Your task to perform on an android device: turn pop-ups off in chrome Image 0: 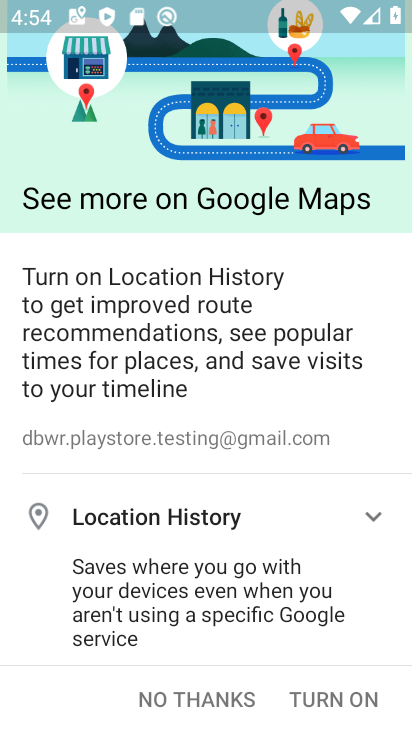
Step 0: press back button
Your task to perform on an android device: turn pop-ups off in chrome Image 1: 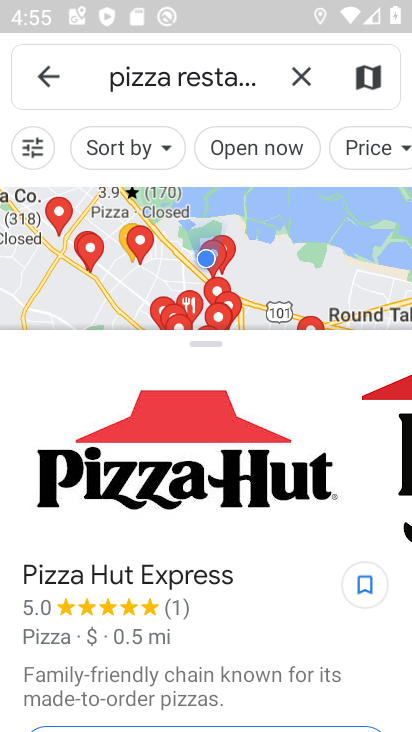
Step 1: press home button
Your task to perform on an android device: turn pop-ups off in chrome Image 2: 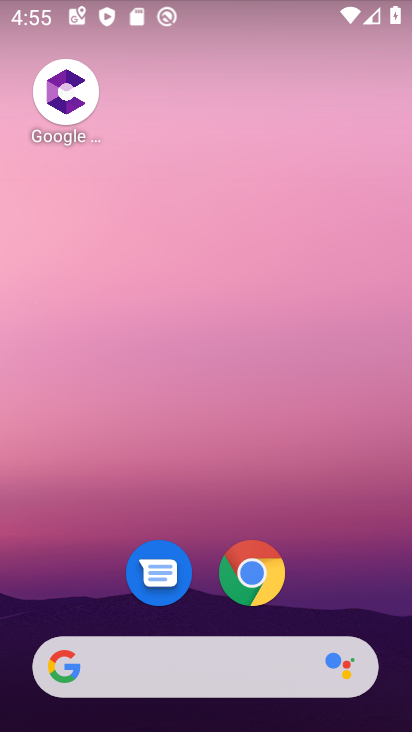
Step 2: click (244, 583)
Your task to perform on an android device: turn pop-ups off in chrome Image 3: 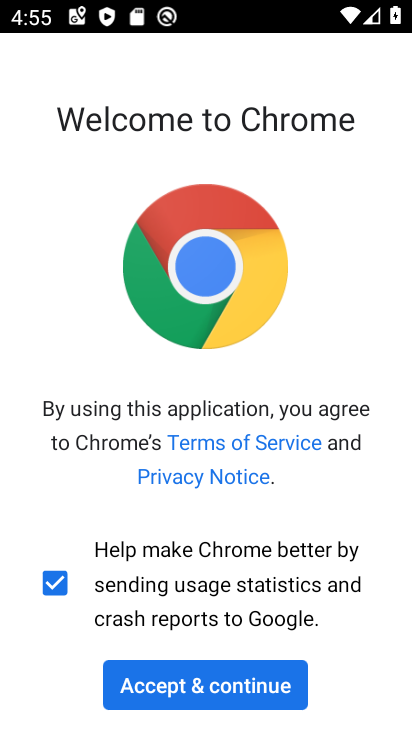
Step 3: click (207, 685)
Your task to perform on an android device: turn pop-ups off in chrome Image 4: 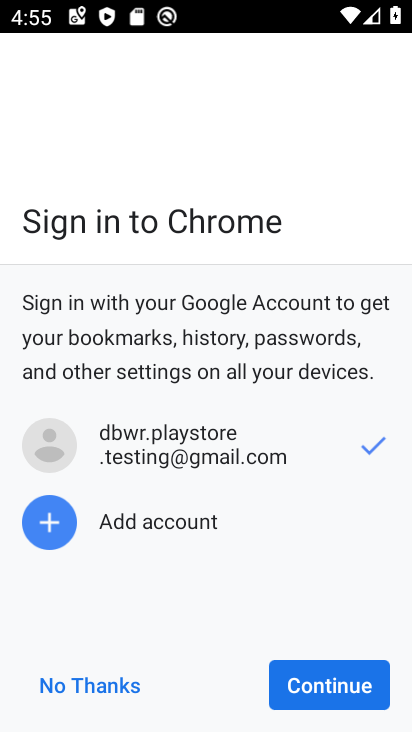
Step 4: click (323, 693)
Your task to perform on an android device: turn pop-ups off in chrome Image 5: 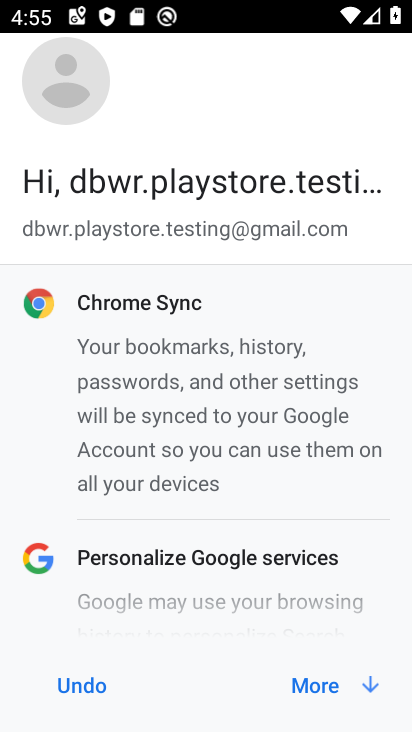
Step 5: click (316, 685)
Your task to perform on an android device: turn pop-ups off in chrome Image 6: 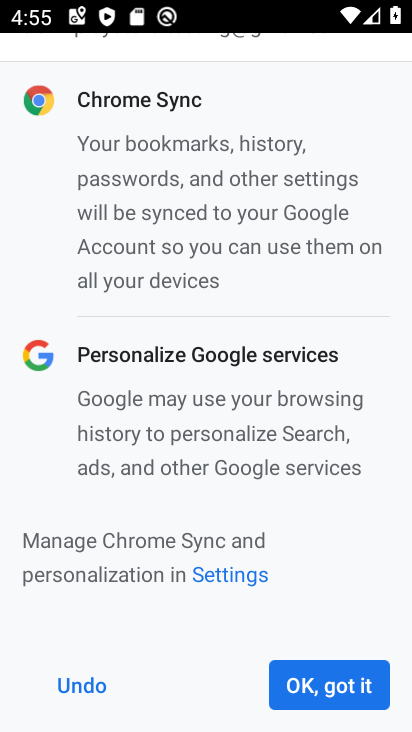
Step 6: click (316, 685)
Your task to perform on an android device: turn pop-ups off in chrome Image 7: 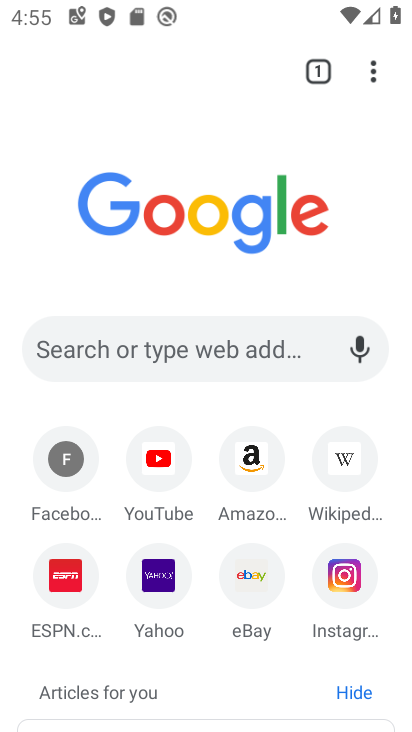
Step 7: click (373, 75)
Your task to perform on an android device: turn pop-ups off in chrome Image 8: 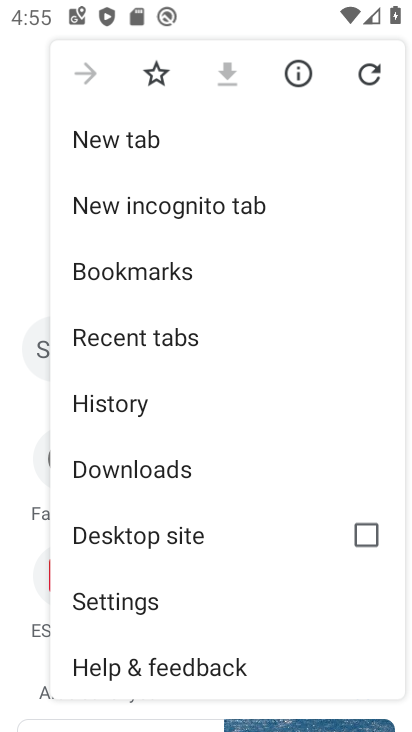
Step 8: click (131, 609)
Your task to perform on an android device: turn pop-ups off in chrome Image 9: 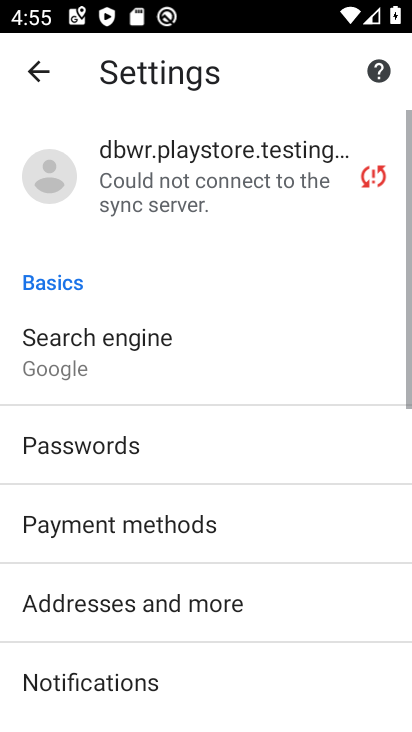
Step 9: drag from (204, 655) to (204, 375)
Your task to perform on an android device: turn pop-ups off in chrome Image 10: 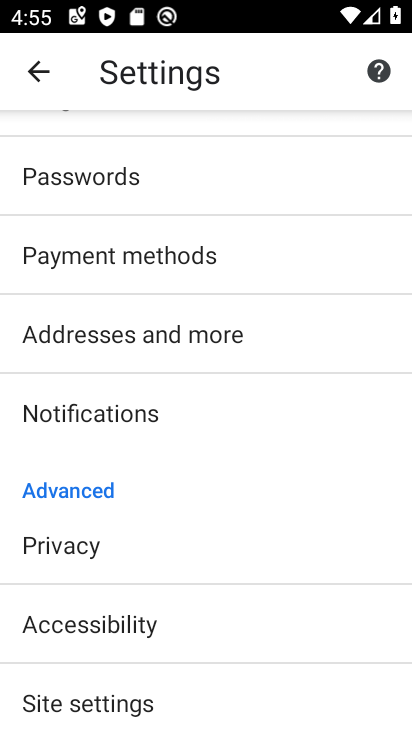
Step 10: click (132, 703)
Your task to perform on an android device: turn pop-ups off in chrome Image 11: 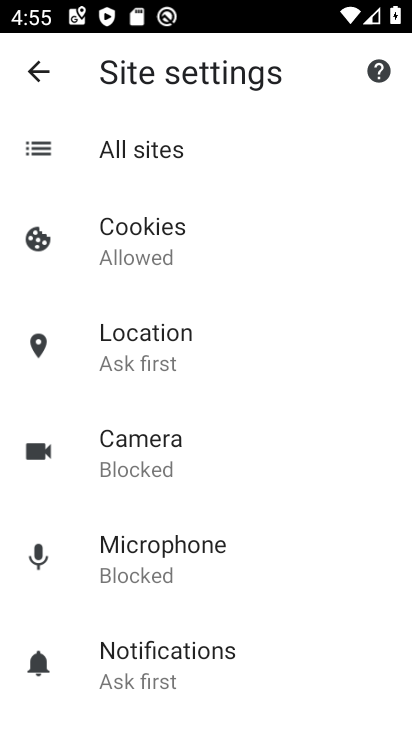
Step 11: drag from (205, 671) to (255, 307)
Your task to perform on an android device: turn pop-ups off in chrome Image 12: 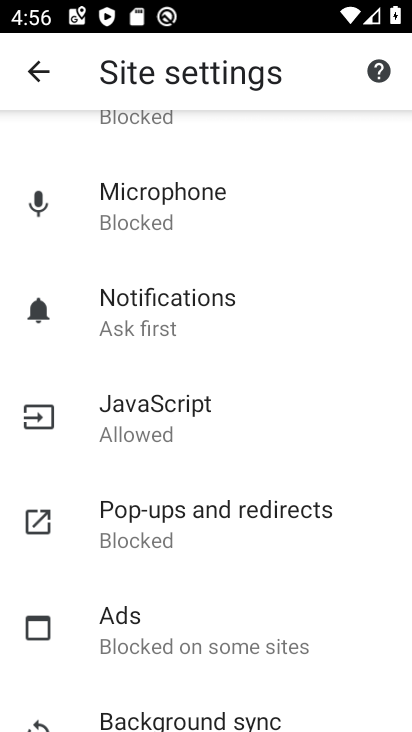
Step 12: click (232, 526)
Your task to perform on an android device: turn pop-ups off in chrome Image 13: 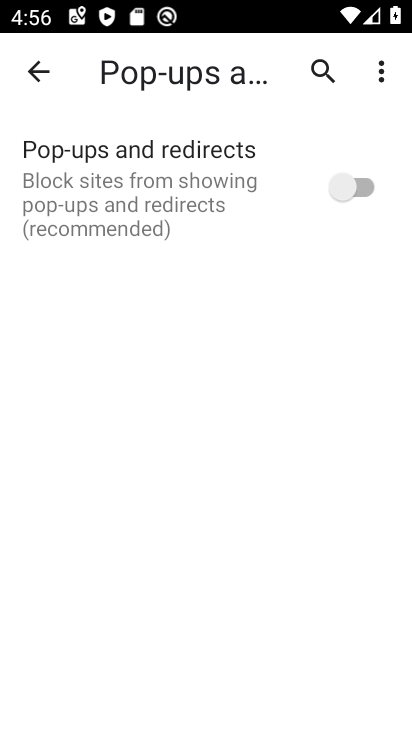
Step 13: task complete